Your task to perform on an android device: What is the recent news? Image 0: 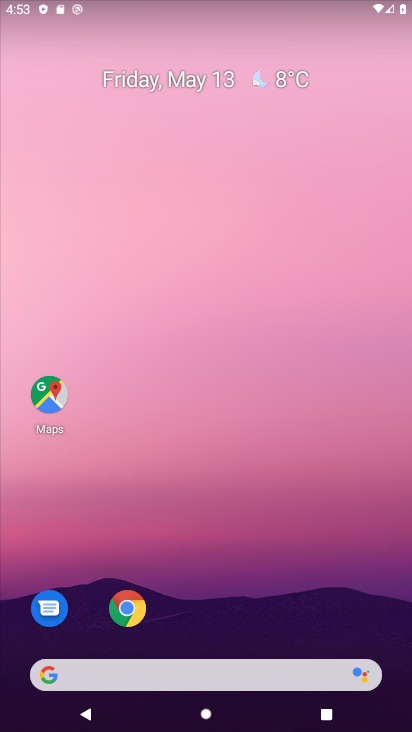
Step 0: drag from (224, 536) to (211, 56)
Your task to perform on an android device: What is the recent news? Image 1: 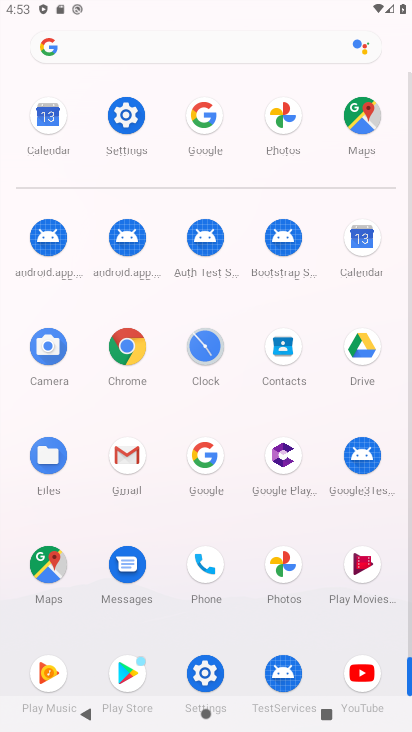
Step 1: click (202, 453)
Your task to perform on an android device: What is the recent news? Image 2: 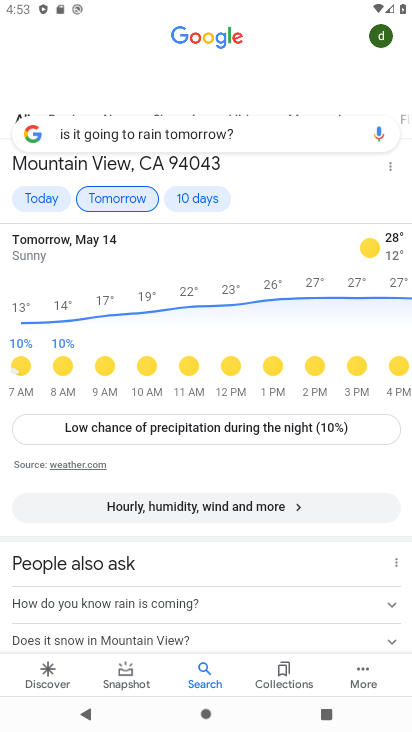
Step 2: click (306, 132)
Your task to perform on an android device: What is the recent news? Image 3: 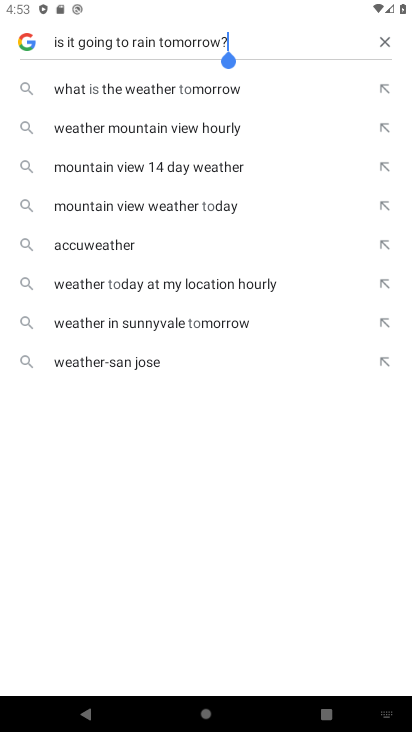
Step 3: click (393, 43)
Your task to perform on an android device: What is the recent news? Image 4: 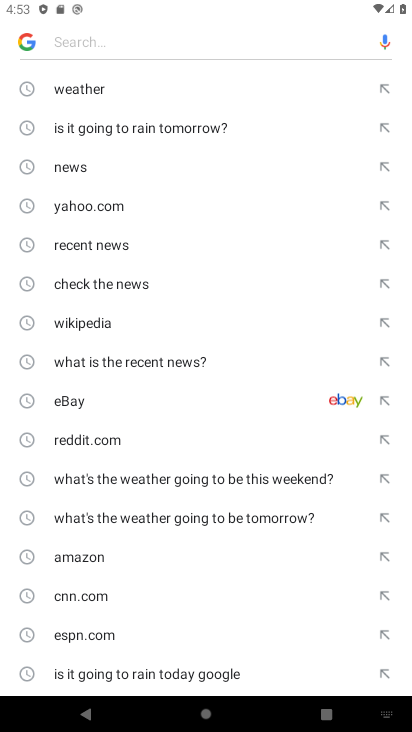
Step 4: click (128, 252)
Your task to perform on an android device: What is the recent news? Image 5: 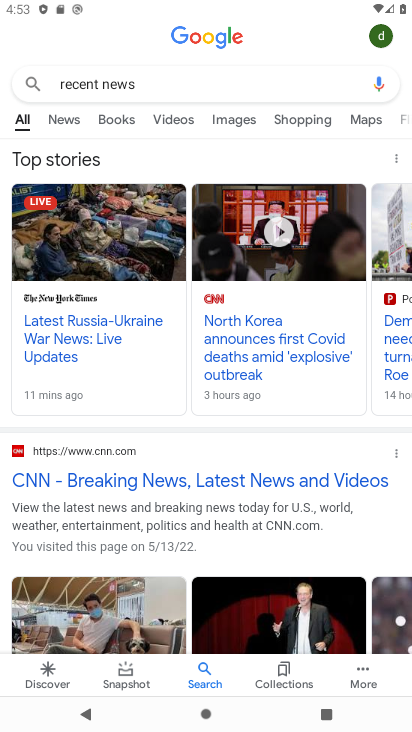
Step 5: task complete